Your task to perform on an android device: Open internet settings Image 0: 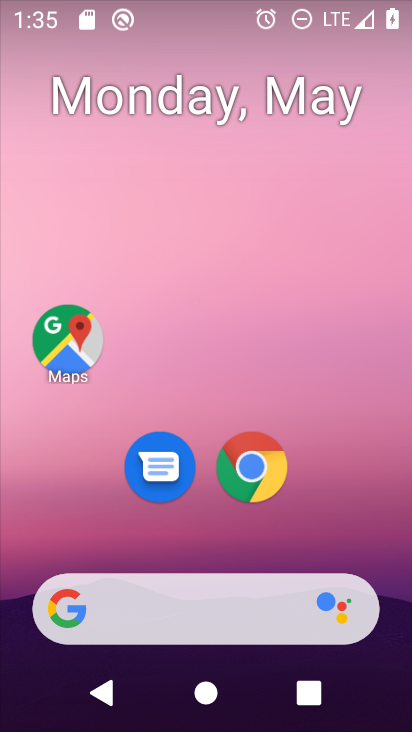
Step 0: drag from (368, 300) to (380, 0)
Your task to perform on an android device: Open internet settings Image 1: 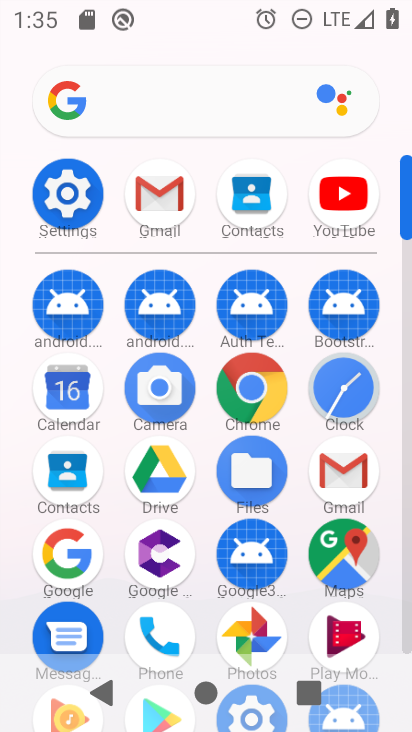
Step 1: click (50, 188)
Your task to perform on an android device: Open internet settings Image 2: 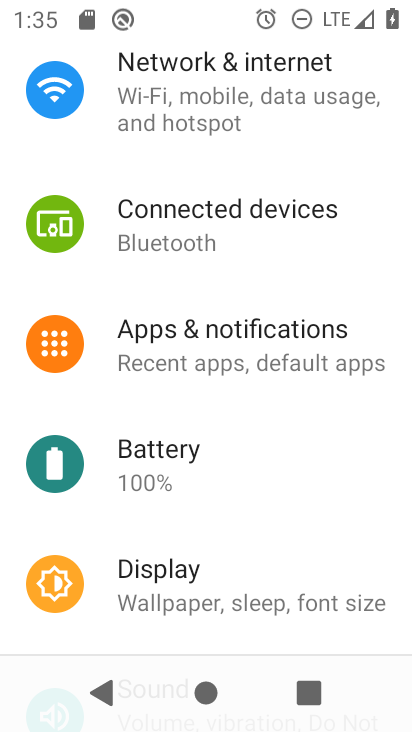
Step 2: click (216, 107)
Your task to perform on an android device: Open internet settings Image 3: 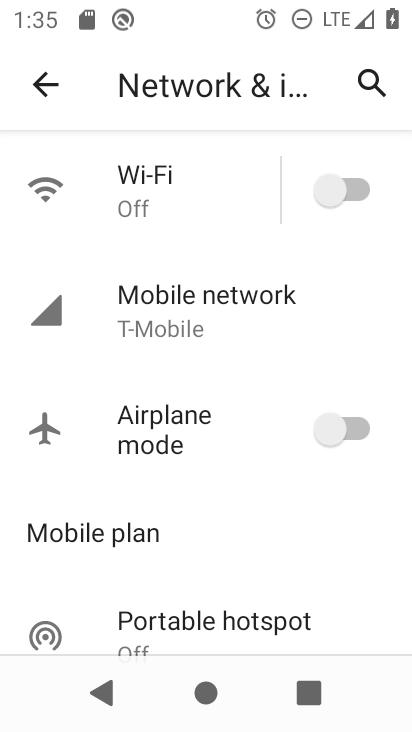
Step 3: task complete